Your task to perform on an android device: add a contact Image 0: 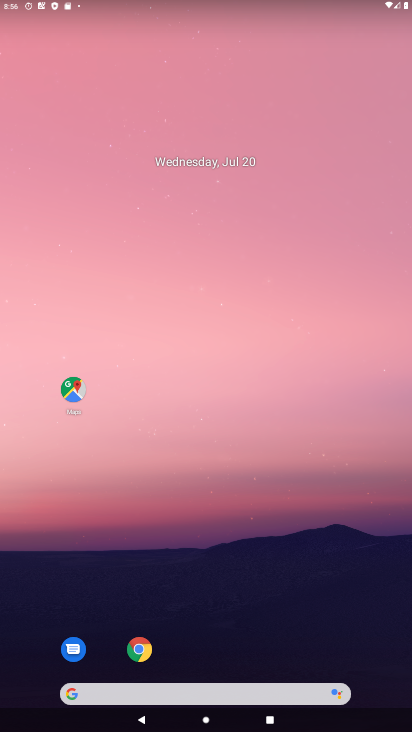
Step 0: drag from (189, 691) to (257, 167)
Your task to perform on an android device: add a contact Image 1: 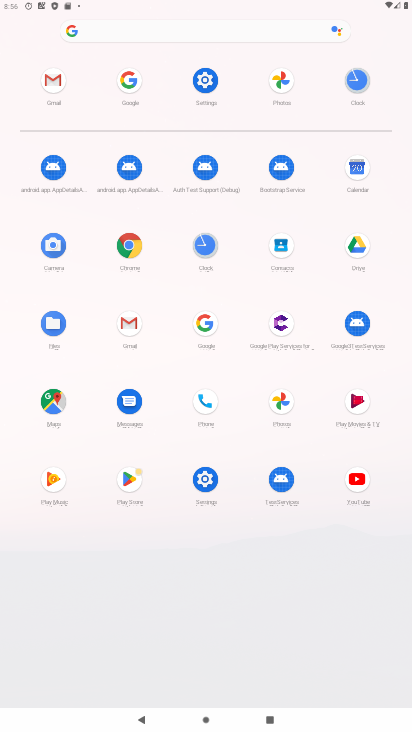
Step 1: click (282, 244)
Your task to perform on an android device: add a contact Image 2: 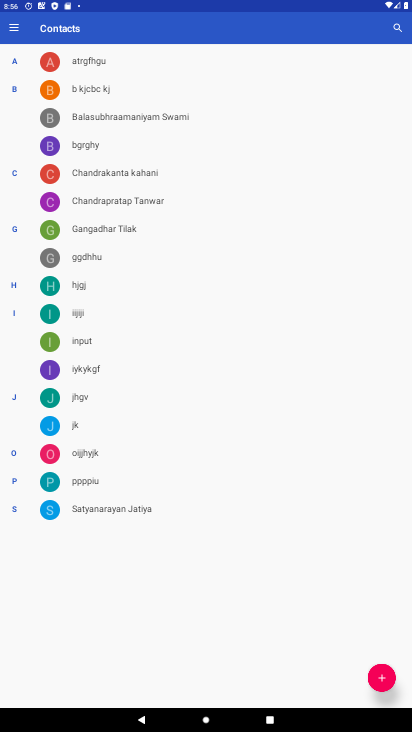
Step 2: click (385, 678)
Your task to perform on an android device: add a contact Image 3: 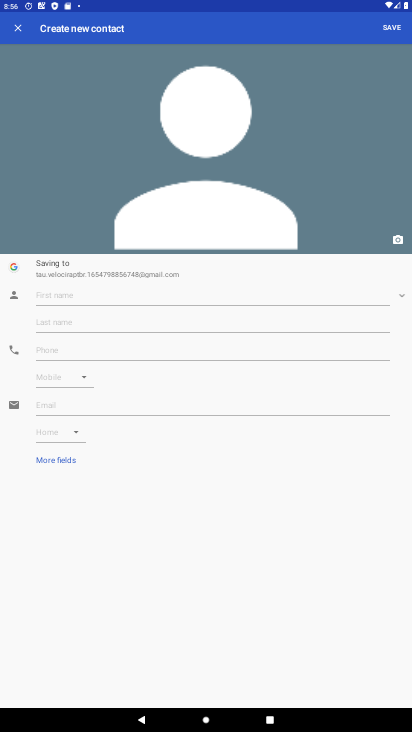
Step 3: click (160, 290)
Your task to perform on an android device: add a contact Image 4: 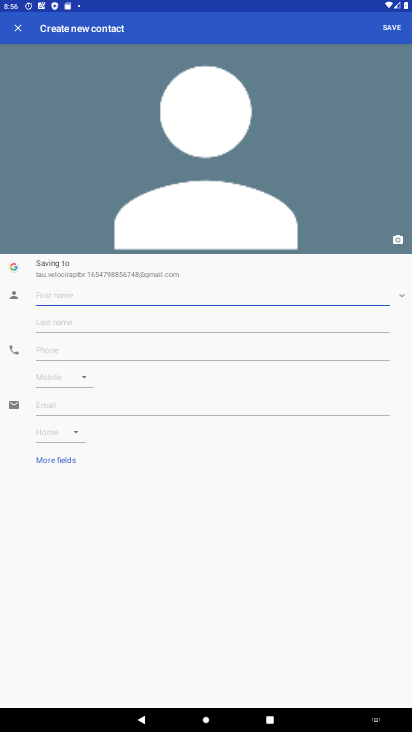
Step 4: type "Supindar"
Your task to perform on an android device: add a contact Image 5: 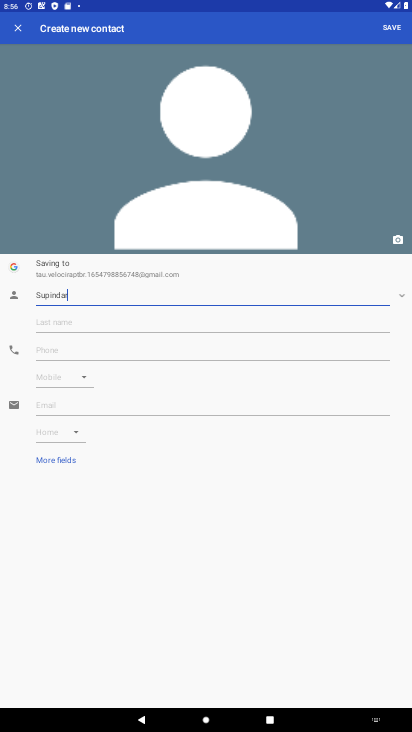
Step 5: click (325, 321)
Your task to perform on an android device: add a contact Image 6: 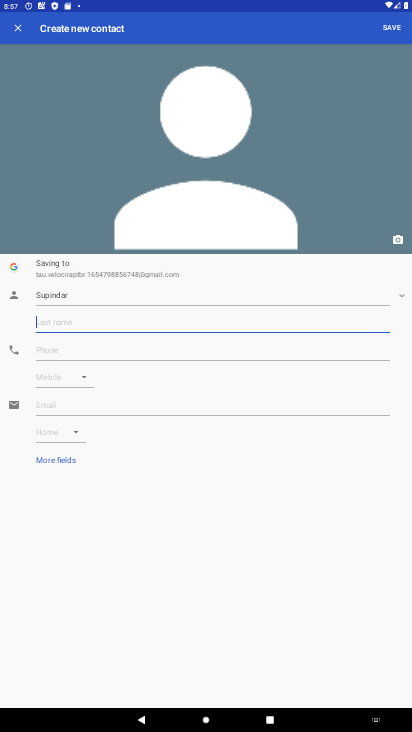
Step 6: type "Tohra"
Your task to perform on an android device: add a contact Image 7: 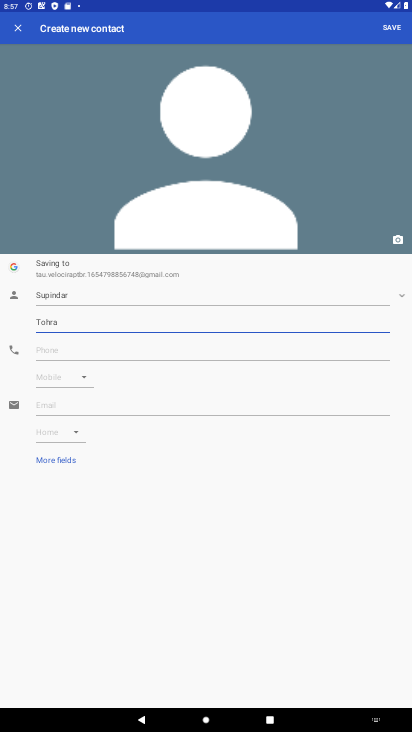
Step 7: click (198, 350)
Your task to perform on an android device: add a contact Image 8: 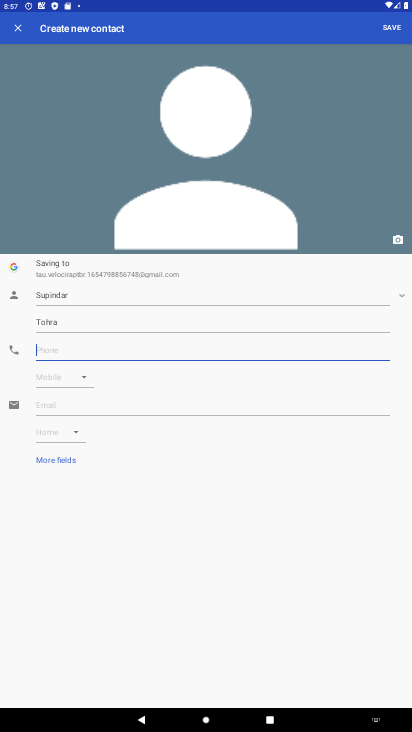
Step 8: type "0998822334477"
Your task to perform on an android device: add a contact Image 9: 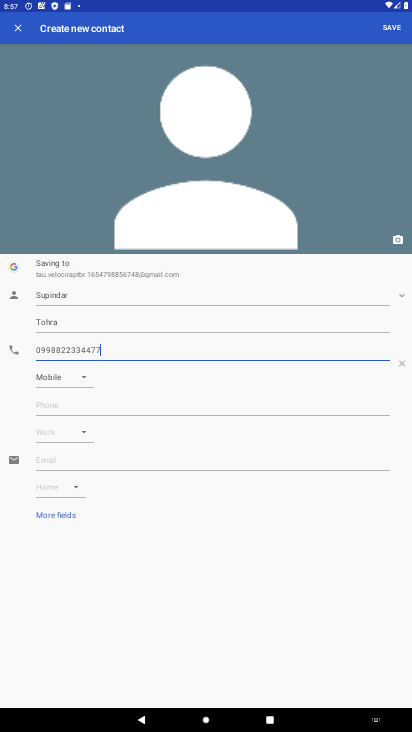
Step 9: click (394, 33)
Your task to perform on an android device: add a contact Image 10: 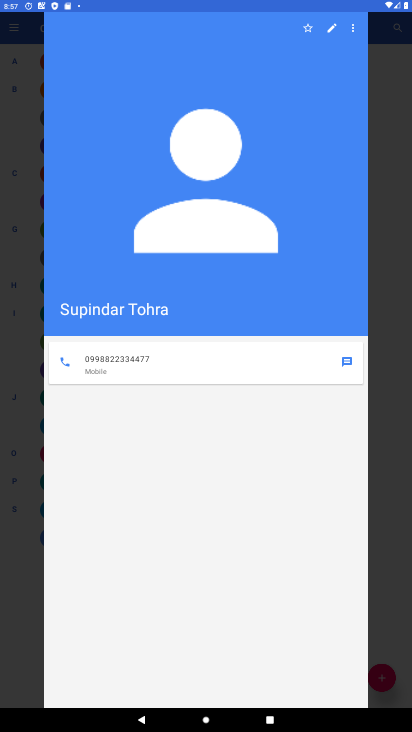
Step 10: task complete